Your task to perform on an android device: Do I have any events tomorrow? Image 0: 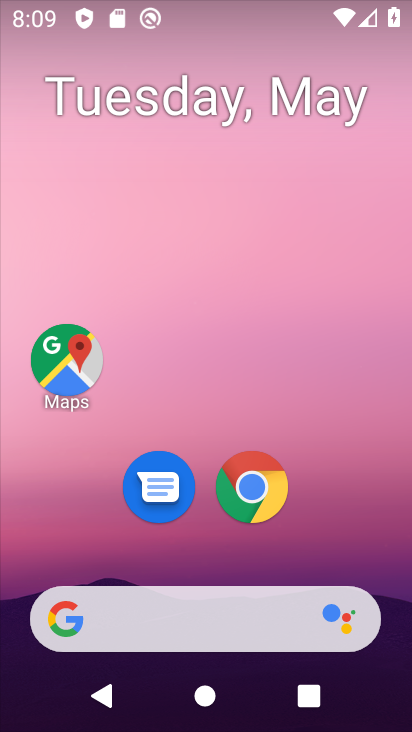
Step 0: drag from (344, 544) to (375, 77)
Your task to perform on an android device: Do I have any events tomorrow? Image 1: 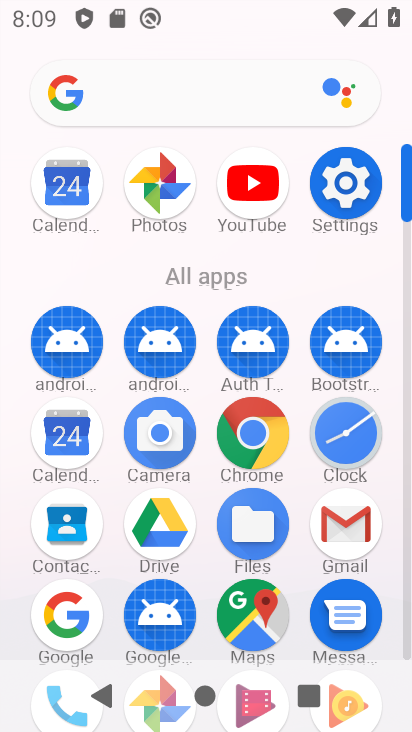
Step 1: click (58, 421)
Your task to perform on an android device: Do I have any events tomorrow? Image 2: 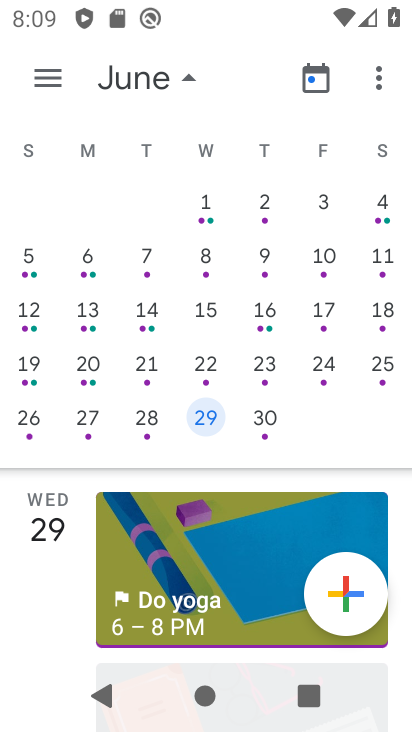
Step 2: drag from (31, 233) to (385, 210)
Your task to perform on an android device: Do I have any events tomorrow? Image 3: 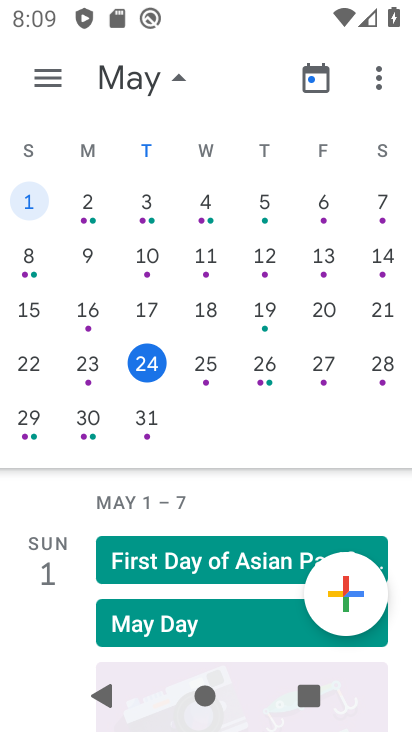
Step 3: click (253, 368)
Your task to perform on an android device: Do I have any events tomorrow? Image 4: 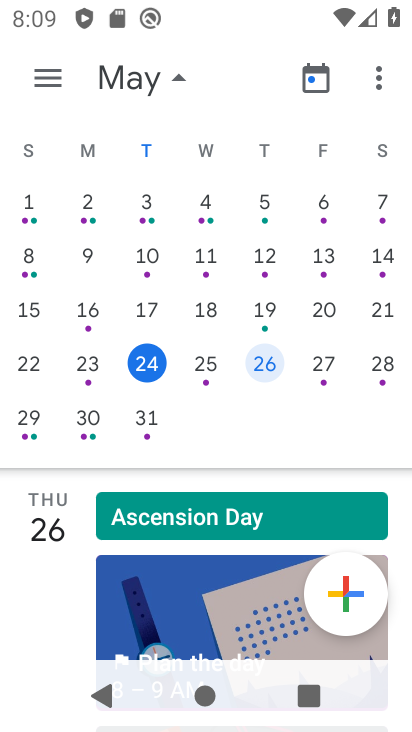
Step 4: drag from (270, 456) to (283, 208)
Your task to perform on an android device: Do I have any events tomorrow? Image 5: 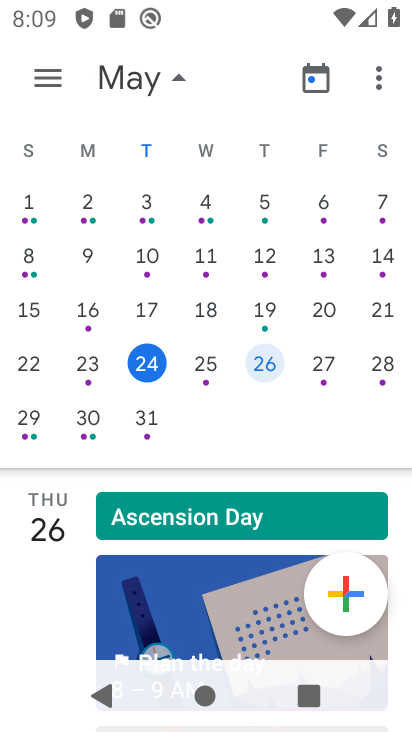
Step 5: click (229, 480)
Your task to perform on an android device: Do I have any events tomorrow? Image 6: 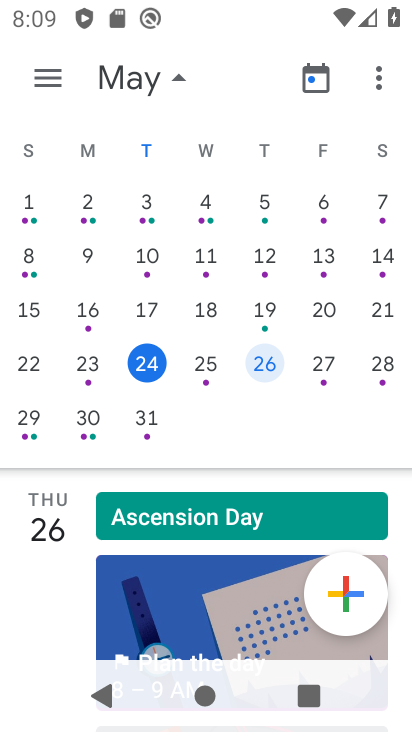
Step 6: task complete